Your task to perform on an android device: open app "Spotify" (install if not already installed) Image 0: 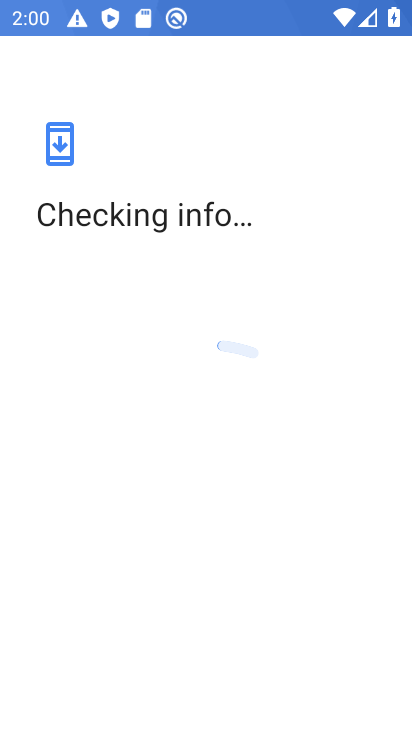
Step 0: press home button
Your task to perform on an android device: open app "Spotify" (install if not already installed) Image 1: 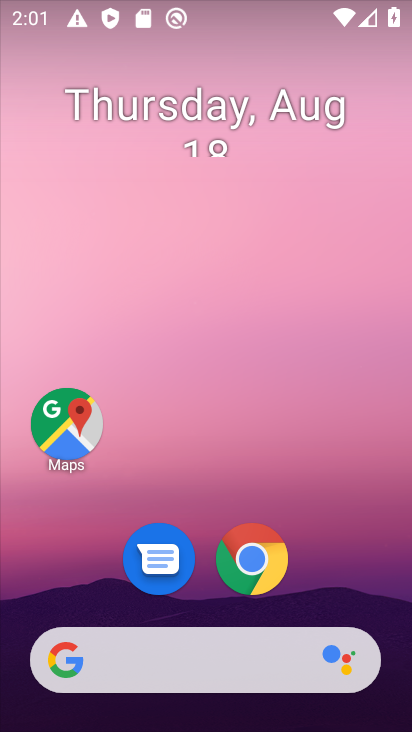
Step 1: drag from (262, 621) to (276, 26)
Your task to perform on an android device: open app "Spotify" (install if not already installed) Image 2: 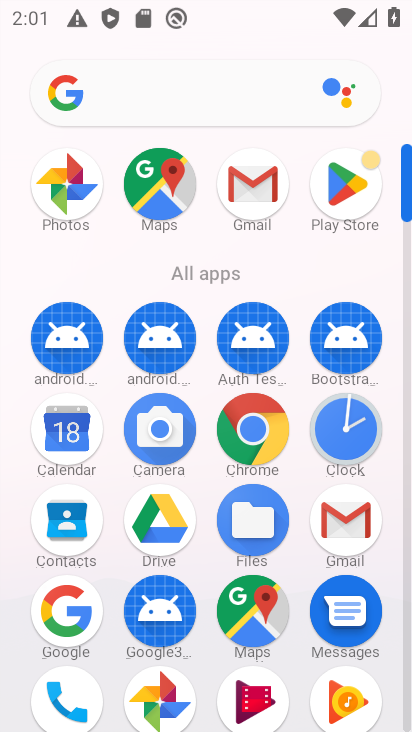
Step 2: click (362, 192)
Your task to perform on an android device: open app "Spotify" (install if not already installed) Image 3: 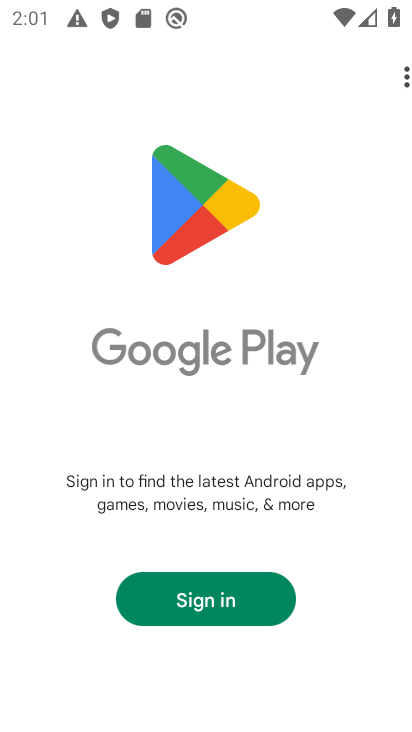
Step 3: task complete